Your task to perform on an android device: toggle improve location accuracy Image 0: 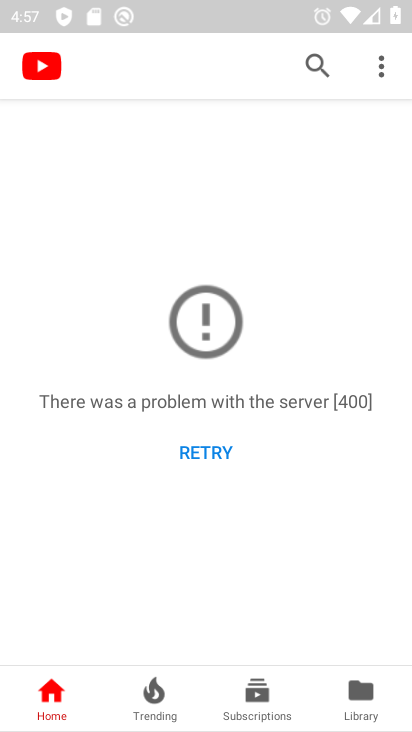
Step 0: press home button
Your task to perform on an android device: toggle improve location accuracy Image 1: 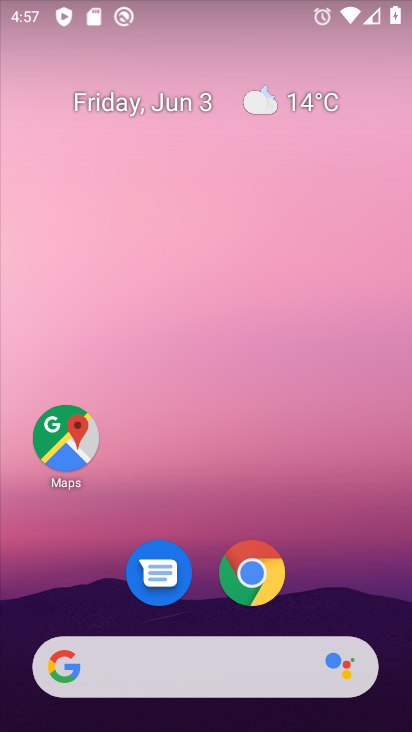
Step 1: drag from (318, 452) to (293, 81)
Your task to perform on an android device: toggle improve location accuracy Image 2: 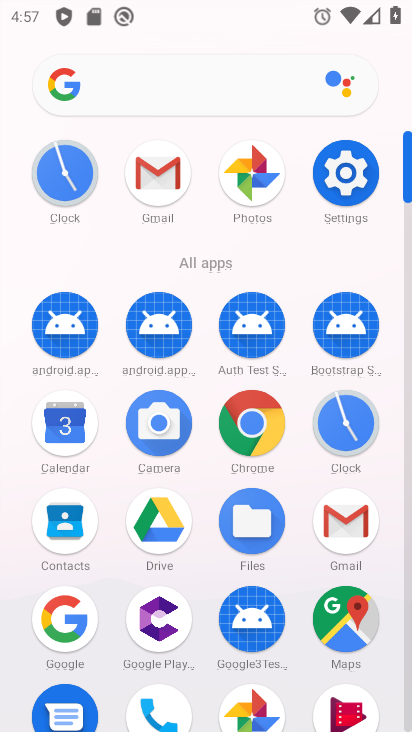
Step 2: click (348, 176)
Your task to perform on an android device: toggle improve location accuracy Image 3: 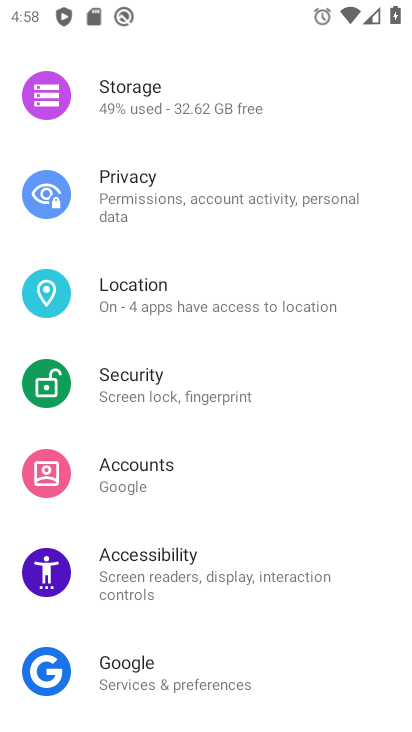
Step 3: click (191, 304)
Your task to perform on an android device: toggle improve location accuracy Image 4: 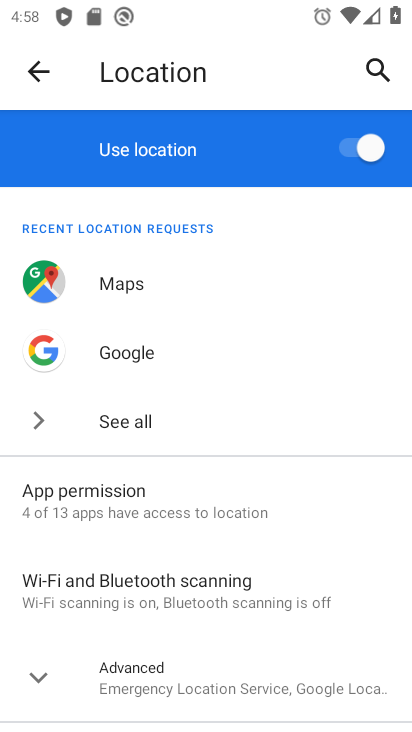
Step 4: drag from (194, 656) to (214, 290)
Your task to perform on an android device: toggle improve location accuracy Image 5: 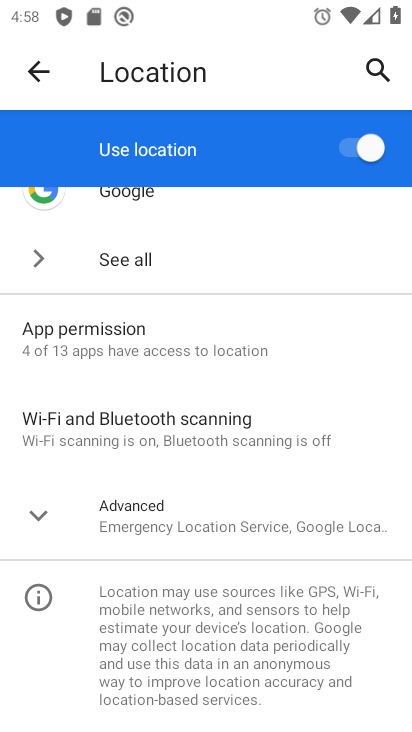
Step 5: click (164, 508)
Your task to perform on an android device: toggle improve location accuracy Image 6: 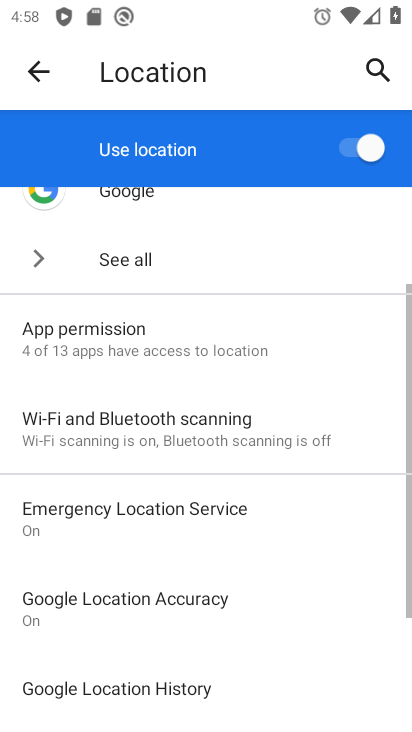
Step 6: drag from (258, 627) to (249, 239)
Your task to perform on an android device: toggle improve location accuracy Image 7: 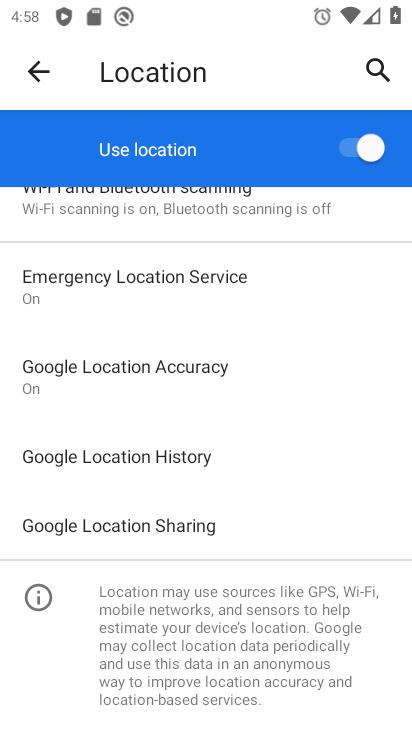
Step 7: click (189, 376)
Your task to perform on an android device: toggle improve location accuracy Image 8: 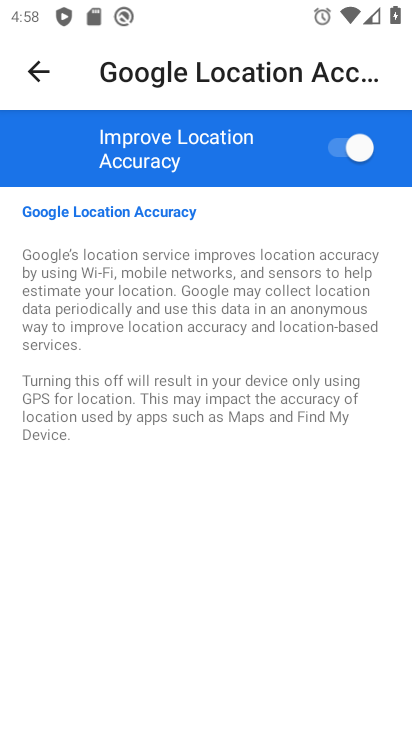
Step 8: click (362, 148)
Your task to perform on an android device: toggle improve location accuracy Image 9: 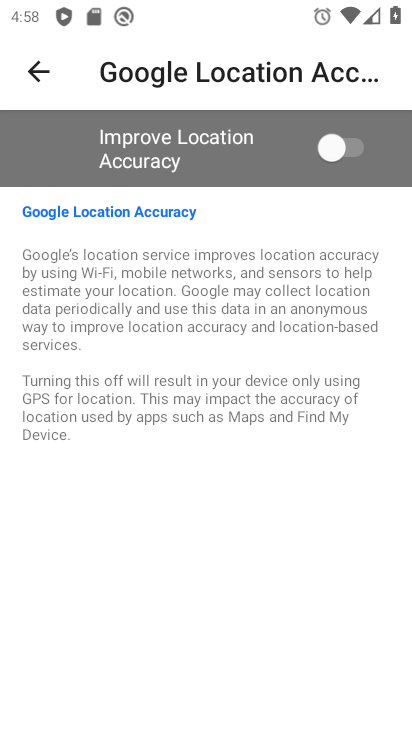
Step 9: task complete